Your task to perform on an android device: Go to notification settings Image 0: 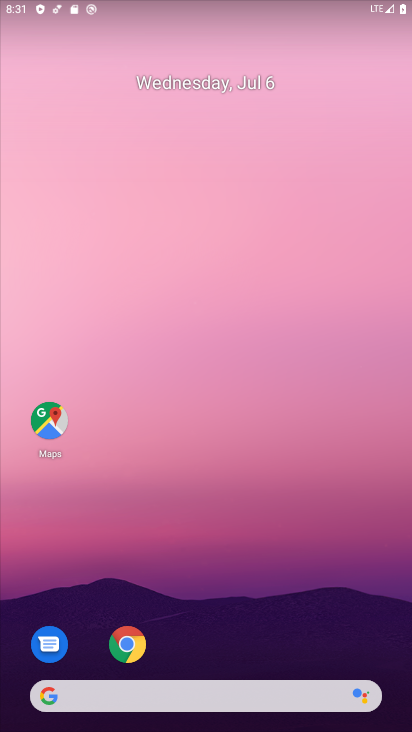
Step 0: drag from (190, 660) to (203, 191)
Your task to perform on an android device: Go to notification settings Image 1: 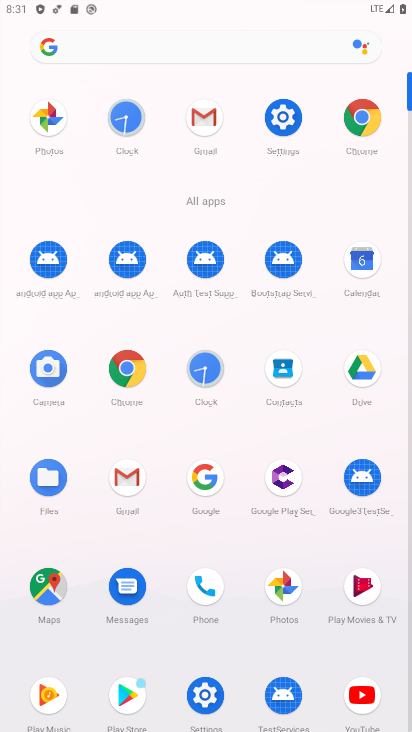
Step 1: click (262, 115)
Your task to perform on an android device: Go to notification settings Image 2: 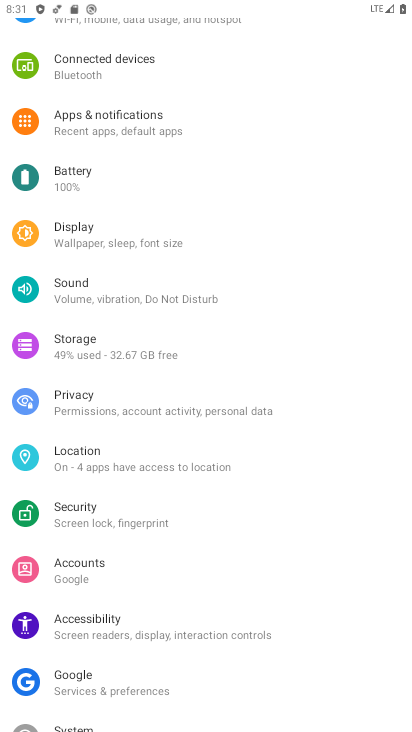
Step 2: click (166, 114)
Your task to perform on an android device: Go to notification settings Image 3: 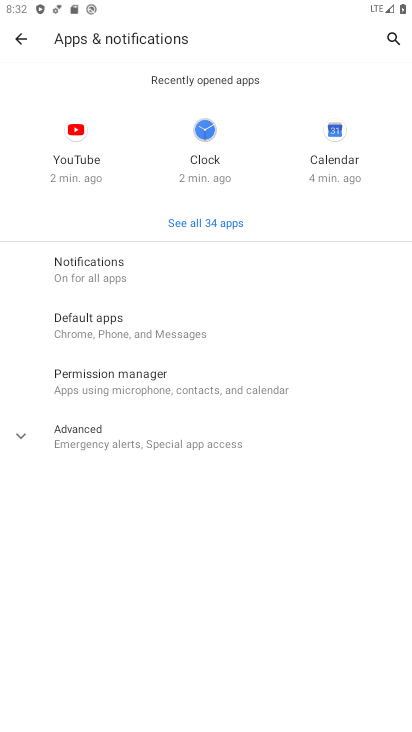
Step 3: click (196, 279)
Your task to perform on an android device: Go to notification settings Image 4: 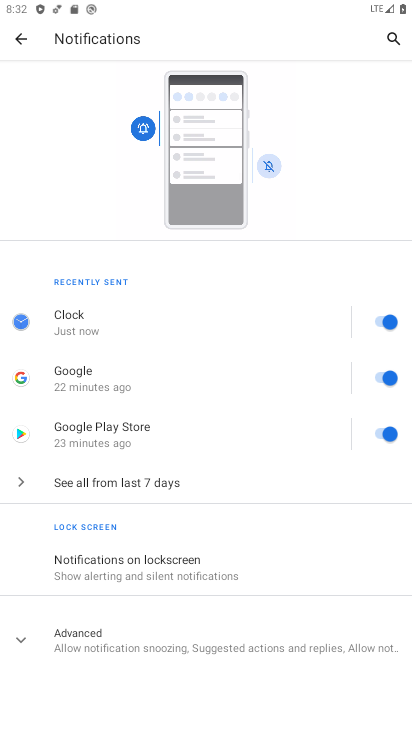
Step 4: task complete